Your task to perform on an android device: Open internet settings Image 0: 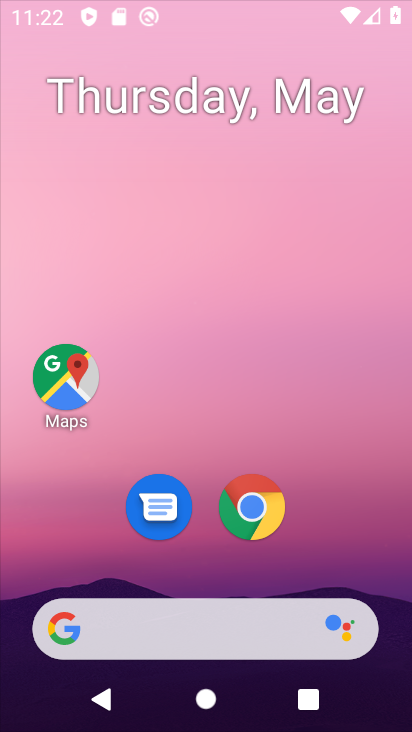
Step 0: drag from (312, 415) to (382, 59)
Your task to perform on an android device: Open internet settings Image 1: 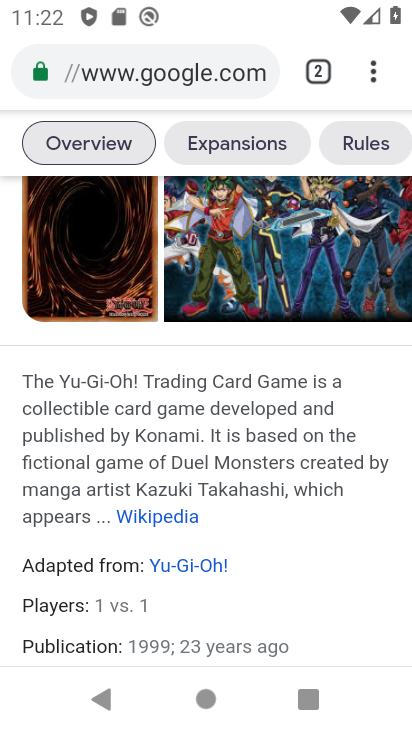
Step 1: press home button
Your task to perform on an android device: Open internet settings Image 2: 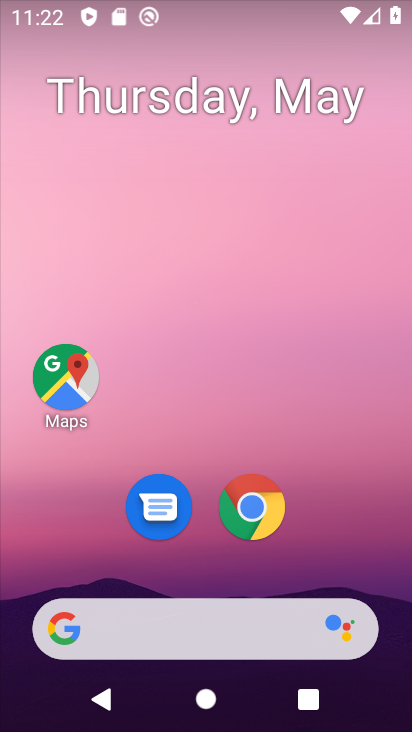
Step 2: drag from (212, 620) to (286, 93)
Your task to perform on an android device: Open internet settings Image 3: 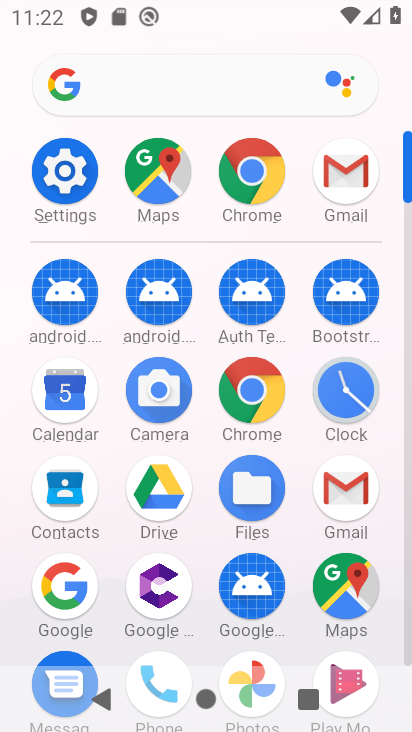
Step 3: click (87, 189)
Your task to perform on an android device: Open internet settings Image 4: 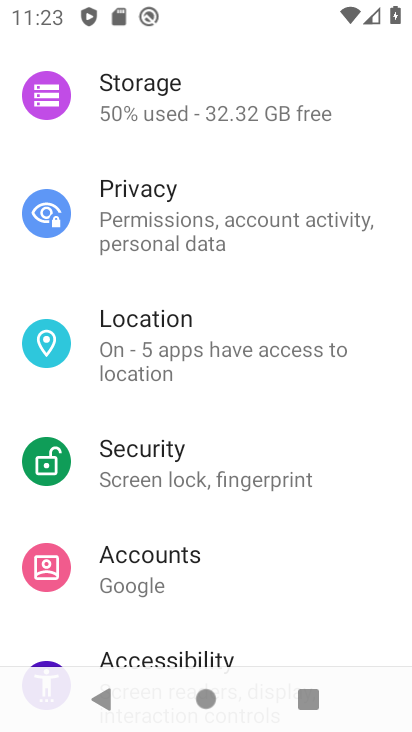
Step 4: drag from (245, 207) to (236, 728)
Your task to perform on an android device: Open internet settings Image 5: 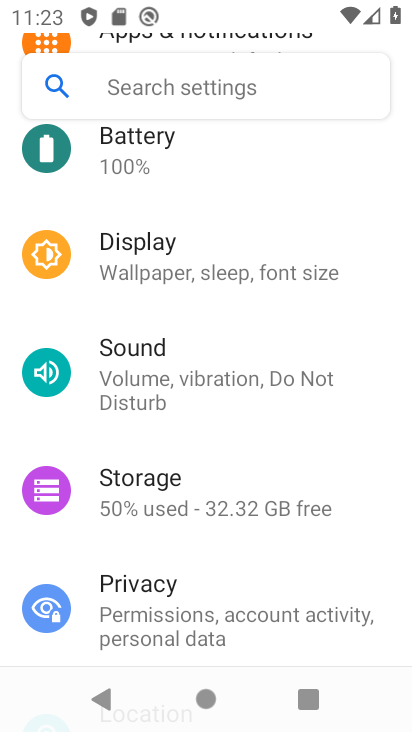
Step 5: drag from (268, 342) to (273, 647)
Your task to perform on an android device: Open internet settings Image 6: 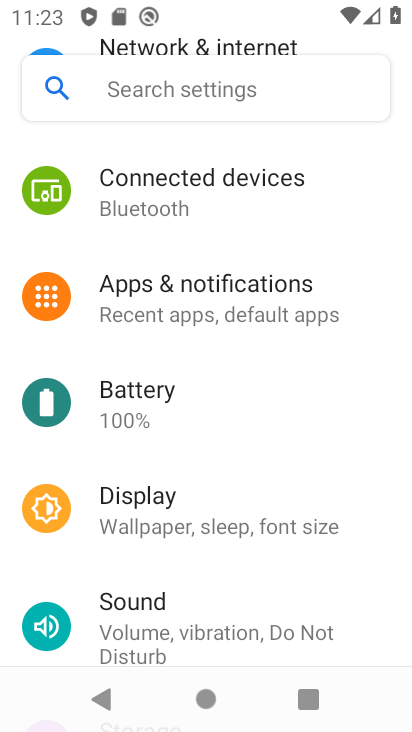
Step 6: drag from (264, 324) to (260, 729)
Your task to perform on an android device: Open internet settings Image 7: 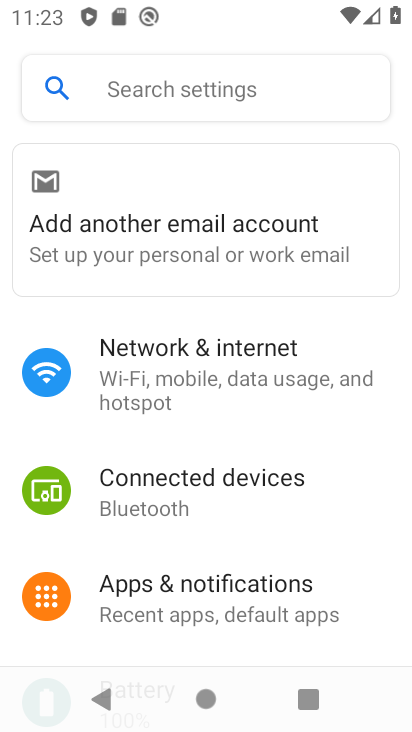
Step 7: click (254, 376)
Your task to perform on an android device: Open internet settings Image 8: 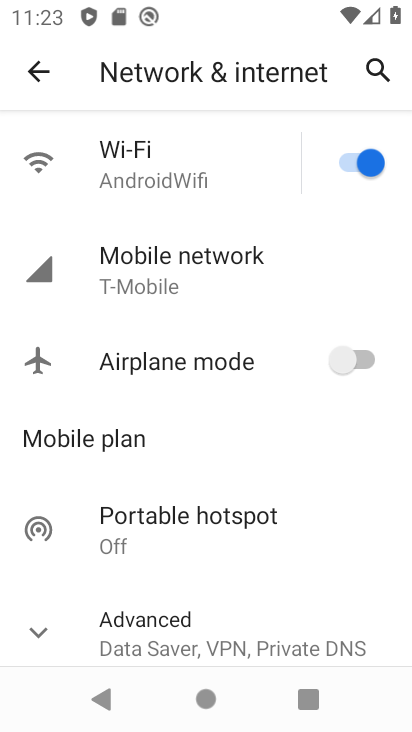
Step 8: click (222, 272)
Your task to perform on an android device: Open internet settings Image 9: 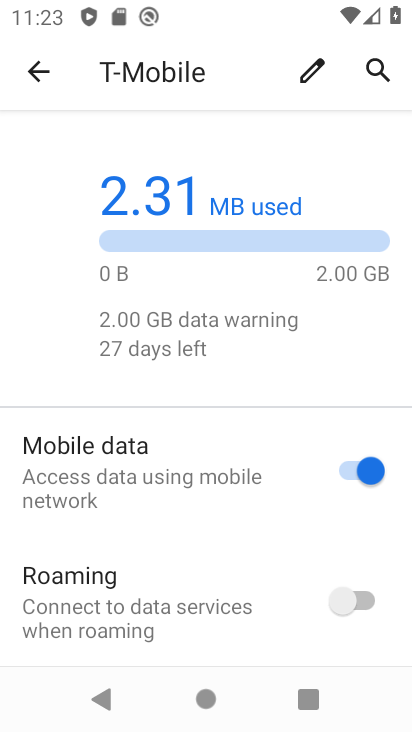
Step 9: task complete